Your task to perform on an android device: Show me recent news Image 0: 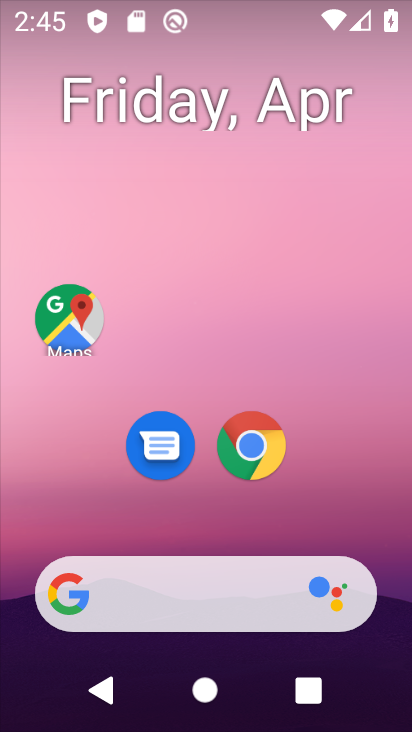
Step 0: drag from (310, 524) to (251, 128)
Your task to perform on an android device: Show me recent news Image 1: 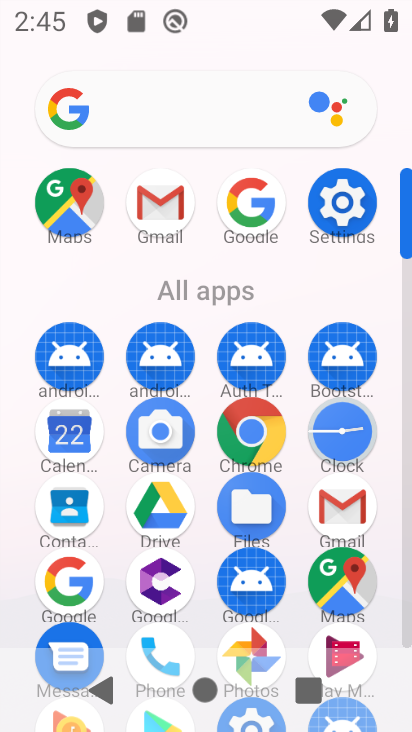
Step 1: click (251, 202)
Your task to perform on an android device: Show me recent news Image 2: 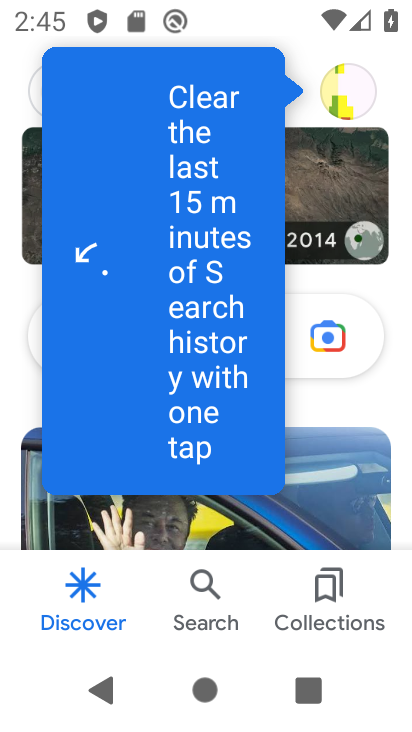
Step 2: click (293, 334)
Your task to perform on an android device: Show me recent news Image 3: 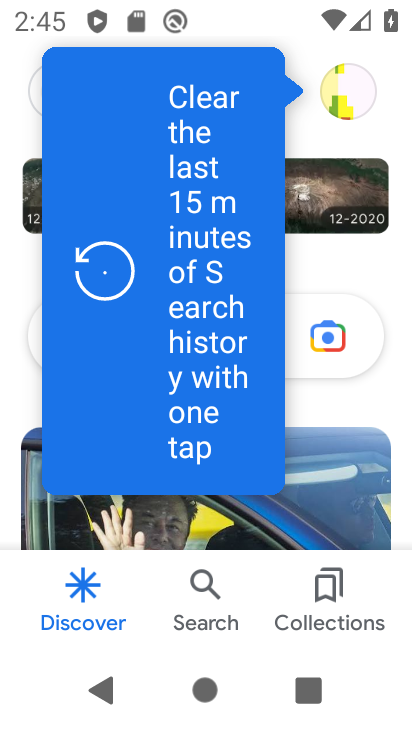
Step 3: click (202, 586)
Your task to perform on an android device: Show me recent news Image 4: 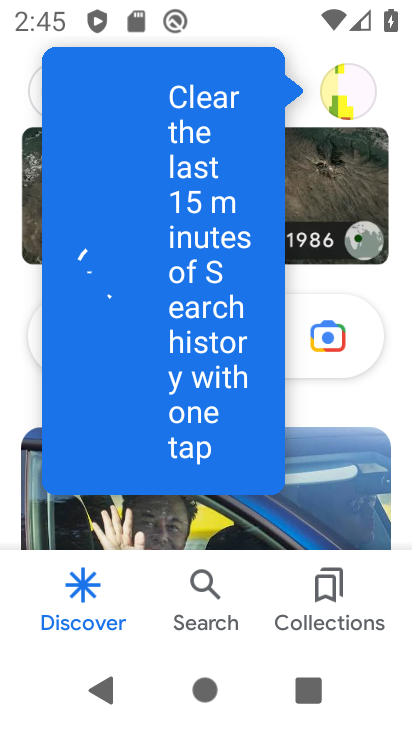
Step 4: click (202, 586)
Your task to perform on an android device: Show me recent news Image 5: 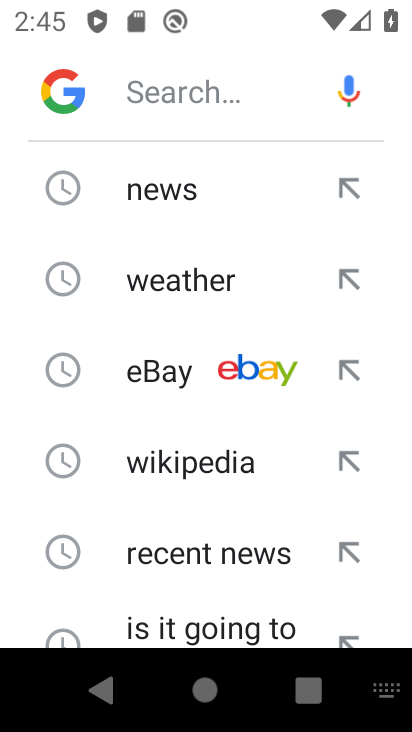
Step 5: click (234, 553)
Your task to perform on an android device: Show me recent news Image 6: 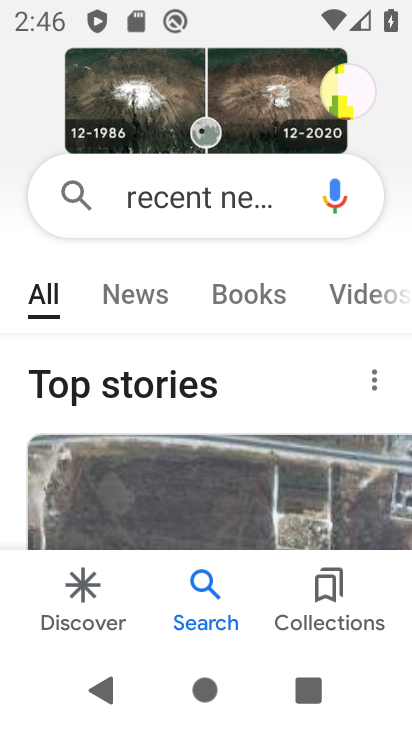
Step 6: task complete